Your task to perform on an android device: turn pop-ups on in chrome Image 0: 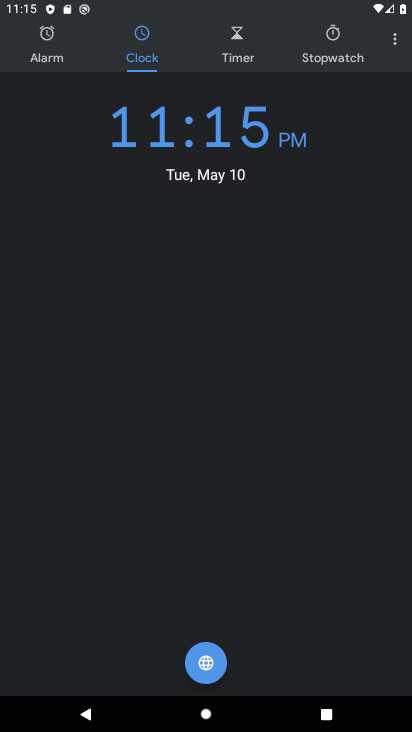
Step 0: press home button
Your task to perform on an android device: turn pop-ups on in chrome Image 1: 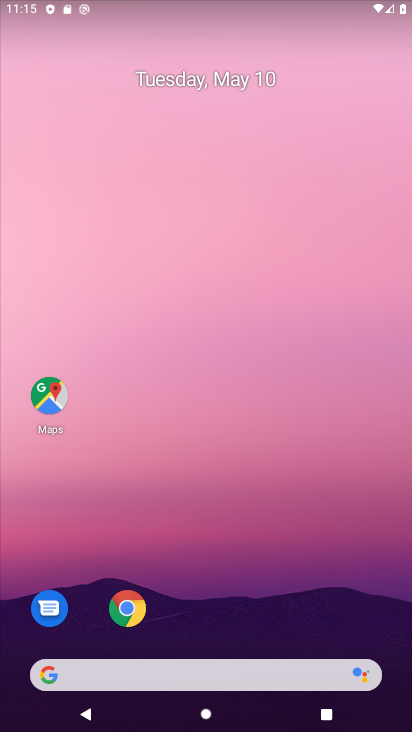
Step 1: drag from (228, 581) to (216, 104)
Your task to perform on an android device: turn pop-ups on in chrome Image 2: 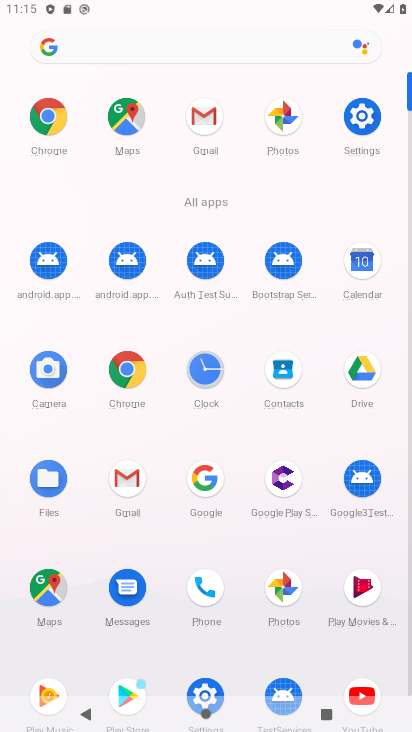
Step 2: click (43, 118)
Your task to perform on an android device: turn pop-ups on in chrome Image 3: 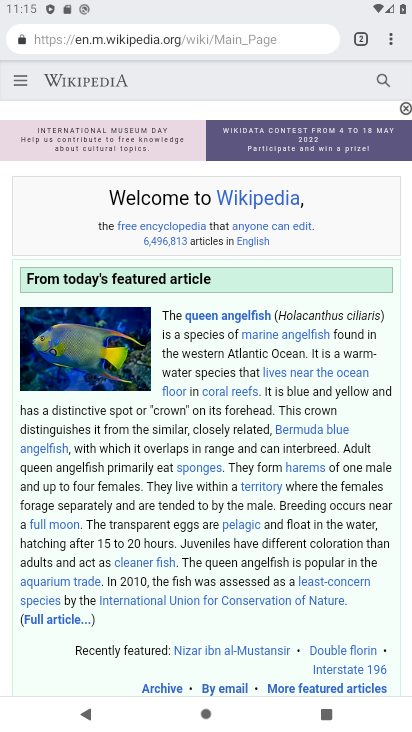
Step 3: click (389, 40)
Your task to perform on an android device: turn pop-ups on in chrome Image 4: 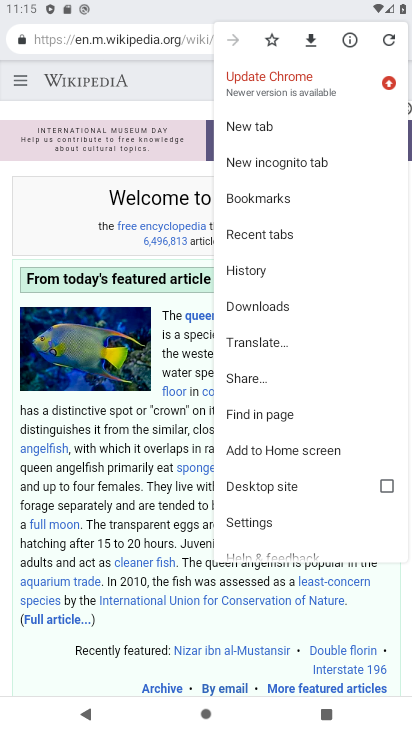
Step 4: click (274, 519)
Your task to perform on an android device: turn pop-ups on in chrome Image 5: 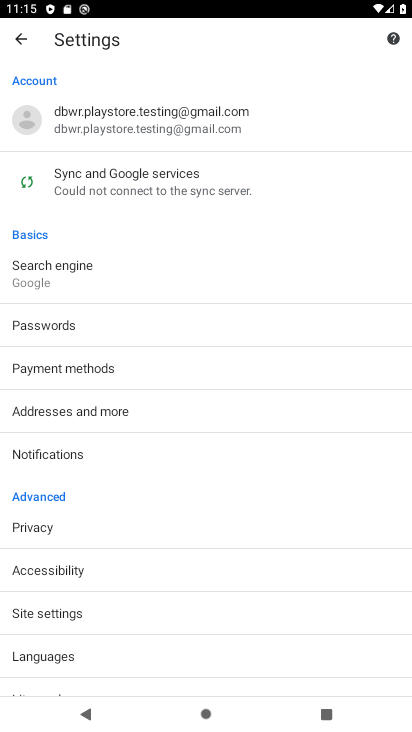
Step 5: click (196, 609)
Your task to perform on an android device: turn pop-ups on in chrome Image 6: 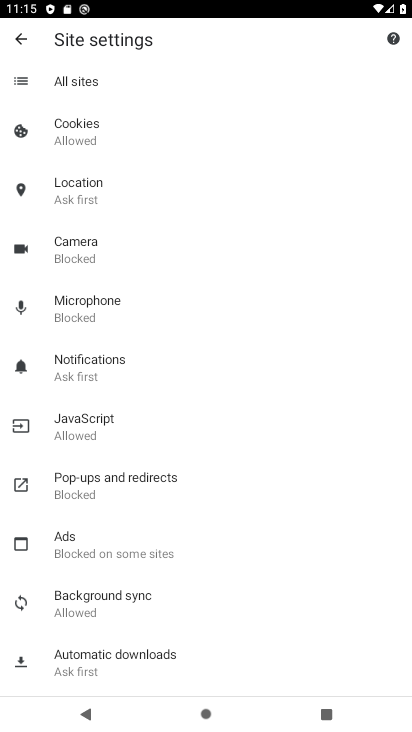
Step 6: click (209, 475)
Your task to perform on an android device: turn pop-ups on in chrome Image 7: 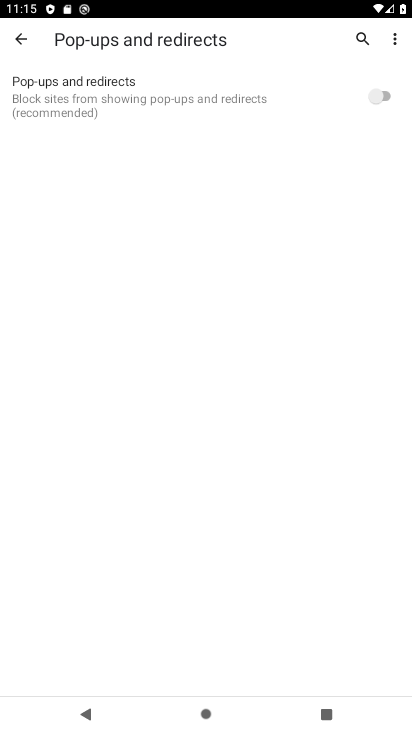
Step 7: click (384, 87)
Your task to perform on an android device: turn pop-ups on in chrome Image 8: 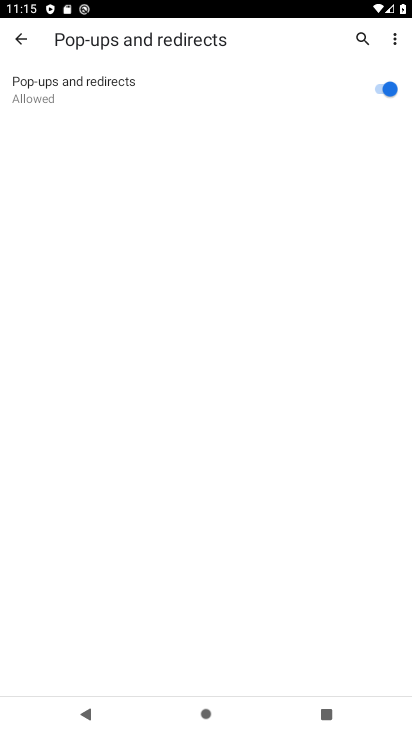
Step 8: task complete